Your task to perform on an android device: Open display settings Image 0: 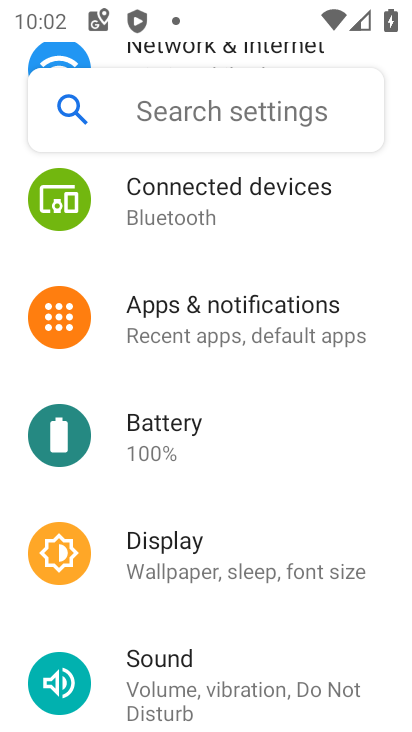
Step 0: press home button
Your task to perform on an android device: Open display settings Image 1: 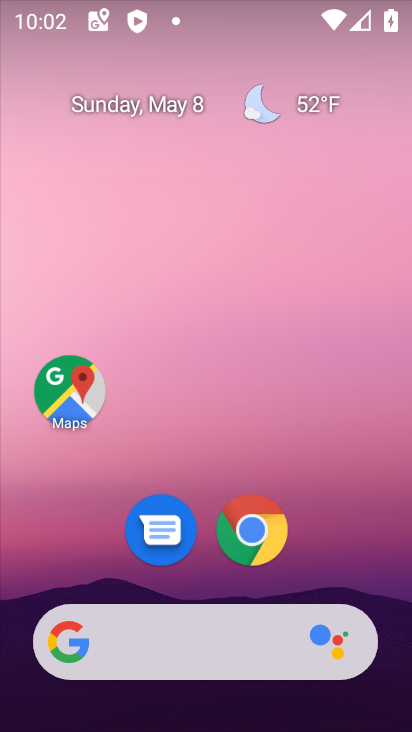
Step 1: drag from (376, 571) to (353, 149)
Your task to perform on an android device: Open display settings Image 2: 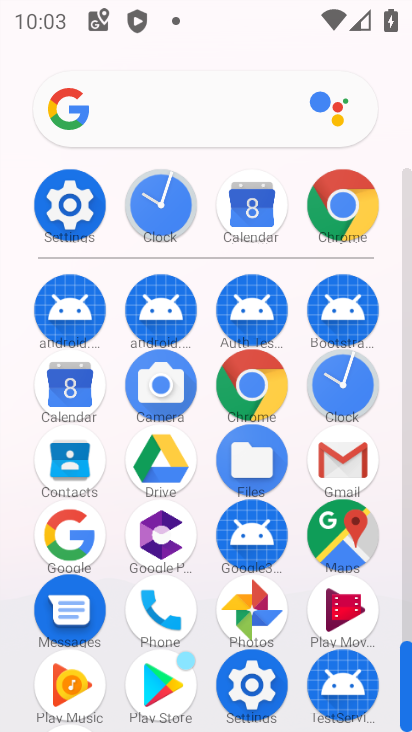
Step 2: click (282, 682)
Your task to perform on an android device: Open display settings Image 3: 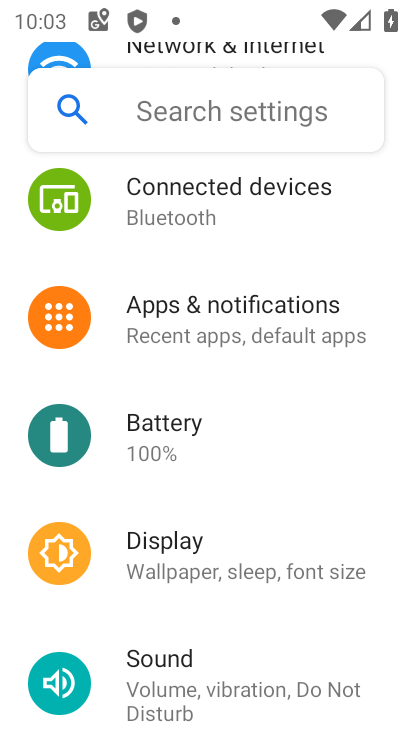
Step 3: click (217, 585)
Your task to perform on an android device: Open display settings Image 4: 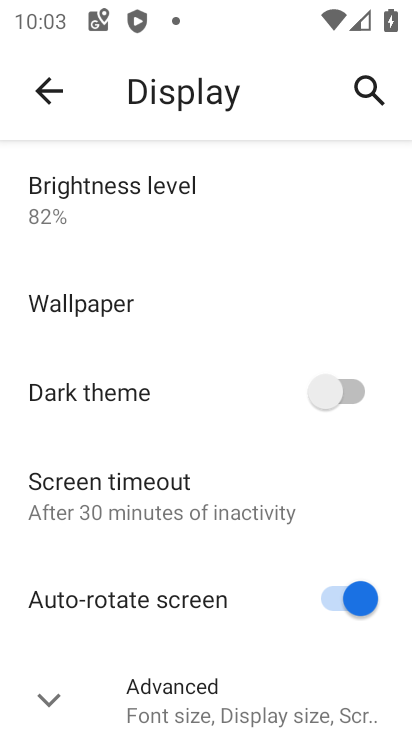
Step 4: drag from (218, 581) to (220, 289)
Your task to perform on an android device: Open display settings Image 5: 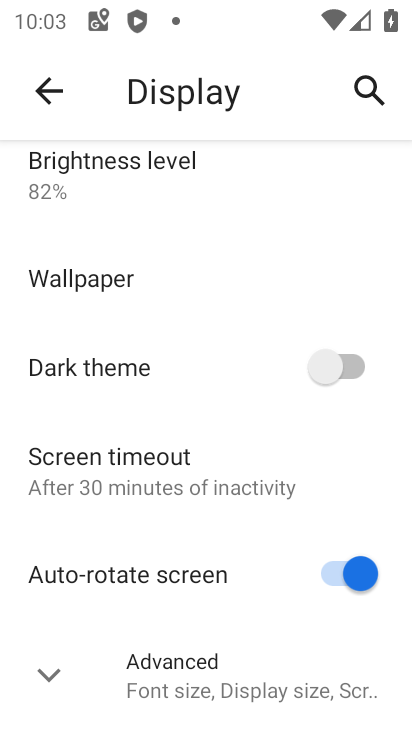
Step 5: drag from (208, 545) to (211, 198)
Your task to perform on an android device: Open display settings Image 6: 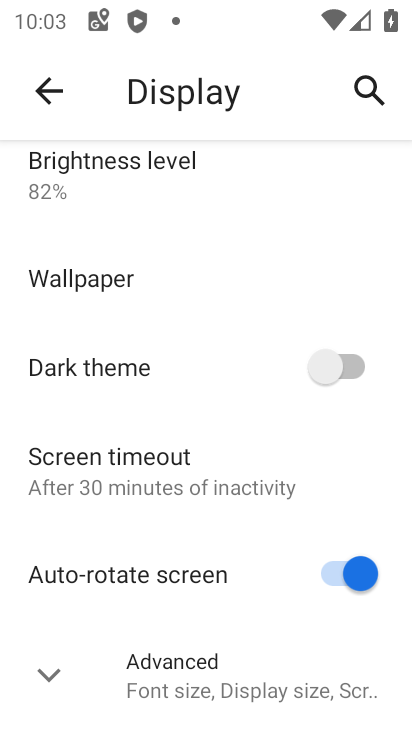
Step 6: click (124, 646)
Your task to perform on an android device: Open display settings Image 7: 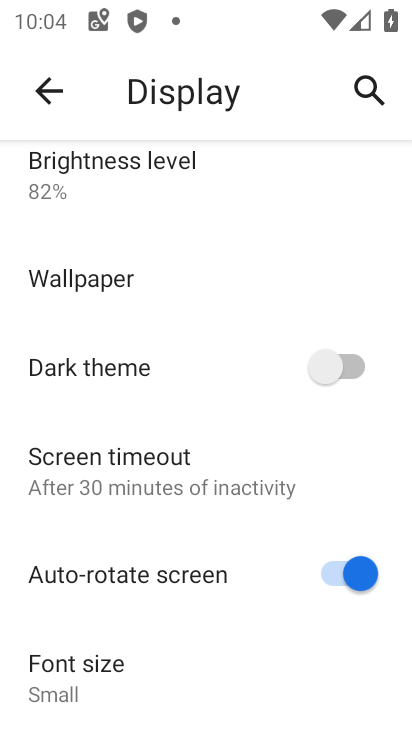
Step 7: task complete